Your task to perform on an android device: change the clock display to digital Image 0: 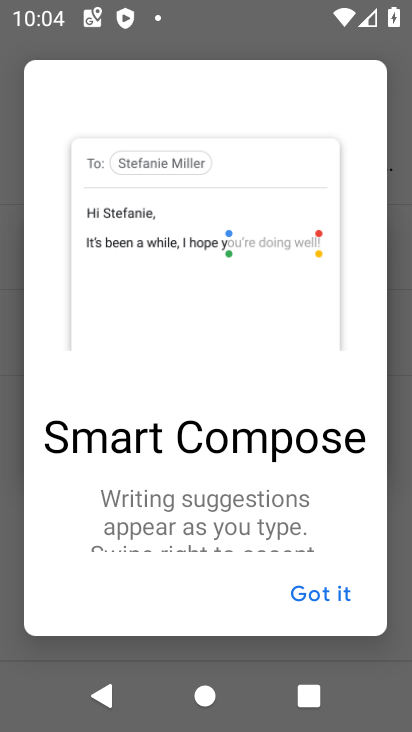
Step 0: press home button
Your task to perform on an android device: change the clock display to digital Image 1: 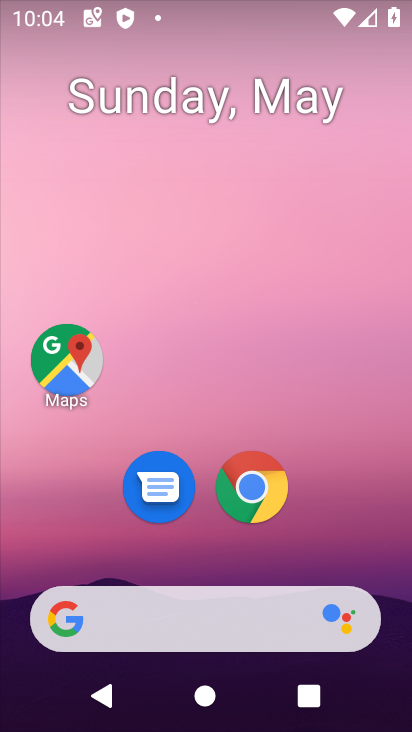
Step 1: drag from (387, 552) to (352, 216)
Your task to perform on an android device: change the clock display to digital Image 2: 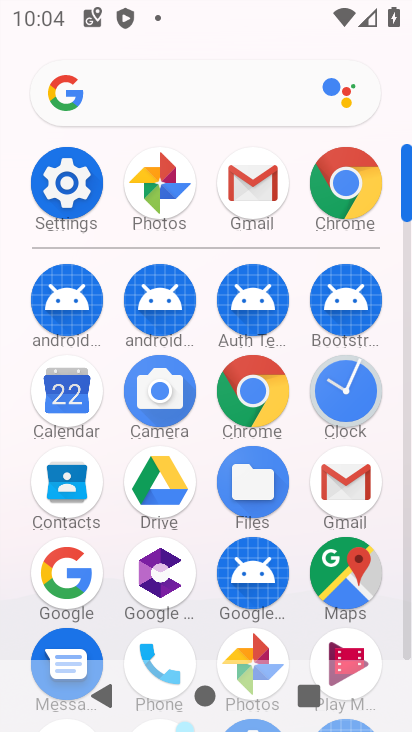
Step 2: click (349, 394)
Your task to perform on an android device: change the clock display to digital Image 3: 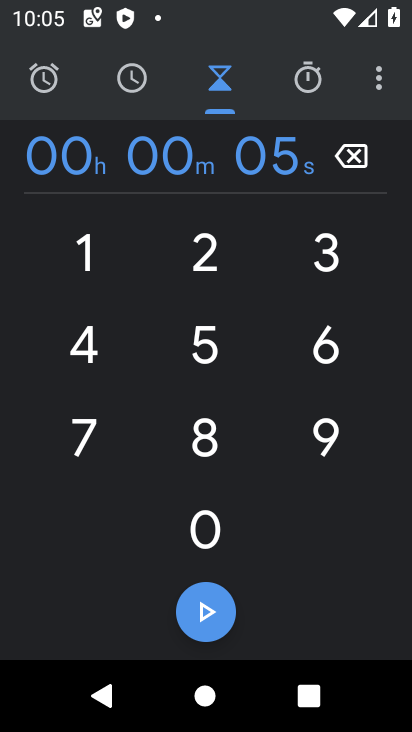
Step 3: click (389, 92)
Your task to perform on an android device: change the clock display to digital Image 4: 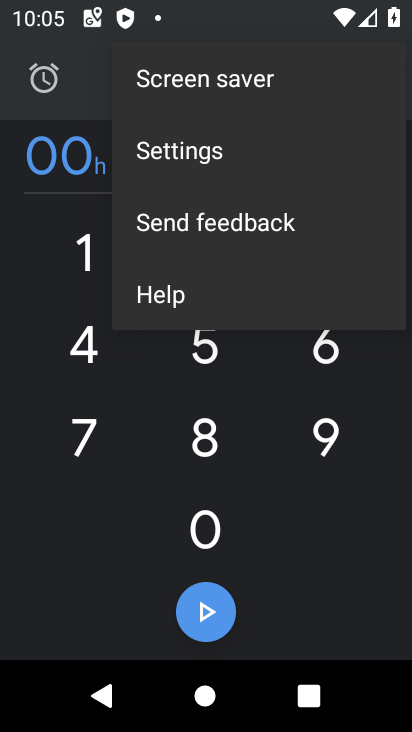
Step 4: click (246, 159)
Your task to perform on an android device: change the clock display to digital Image 5: 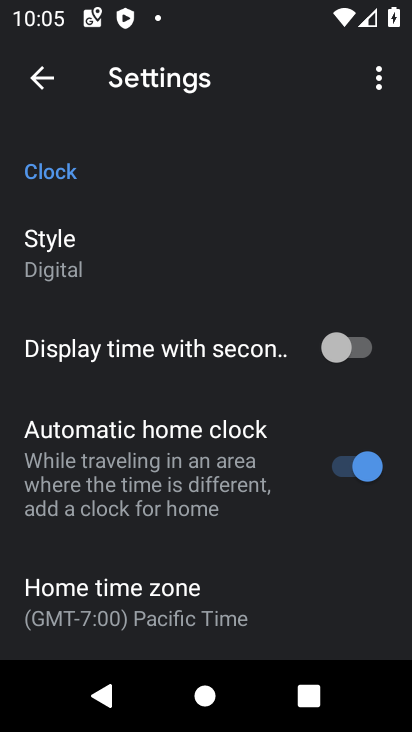
Step 5: task complete